Your task to perform on an android device: Do I have any events this weekend? Image 0: 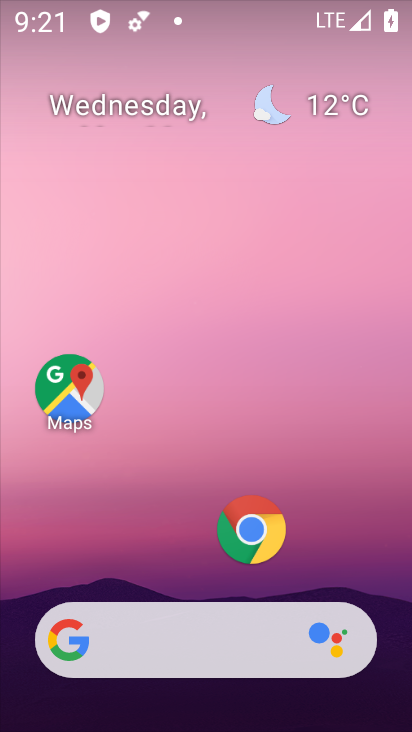
Step 0: drag from (204, 465) to (204, 184)
Your task to perform on an android device: Do I have any events this weekend? Image 1: 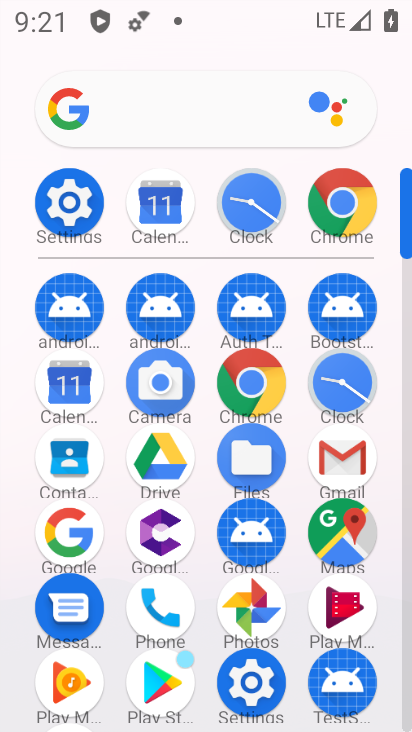
Step 1: click (59, 391)
Your task to perform on an android device: Do I have any events this weekend? Image 2: 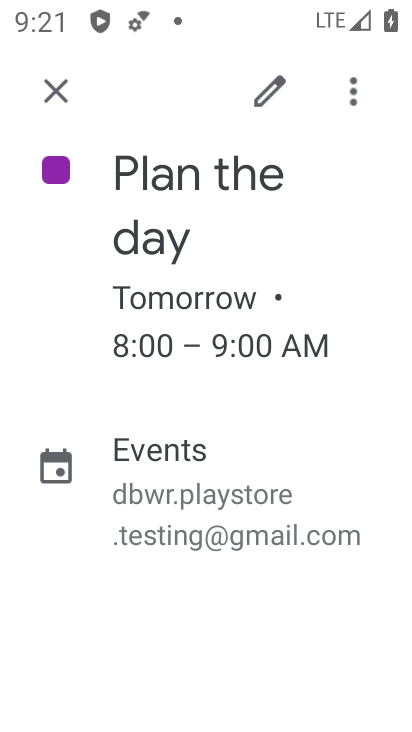
Step 2: click (62, 71)
Your task to perform on an android device: Do I have any events this weekend? Image 3: 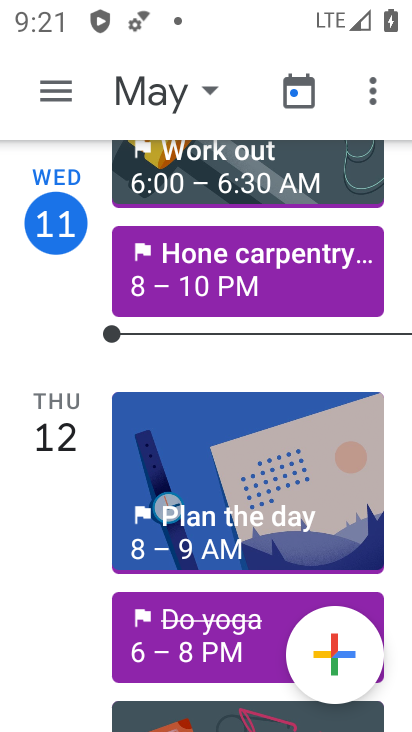
Step 3: click (157, 106)
Your task to perform on an android device: Do I have any events this weekend? Image 4: 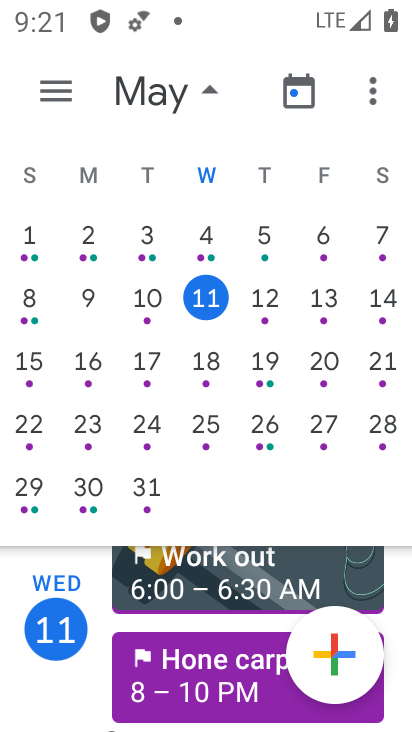
Step 4: click (384, 304)
Your task to perform on an android device: Do I have any events this weekend? Image 5: 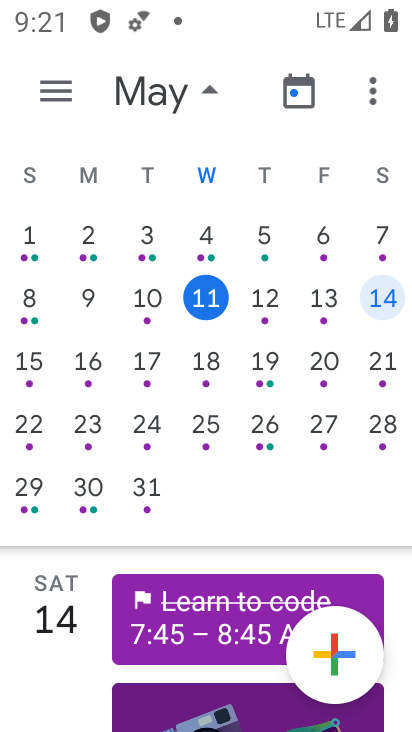
Step 5: task complete